Your task to perform on an android device: turn on location history Image 0: 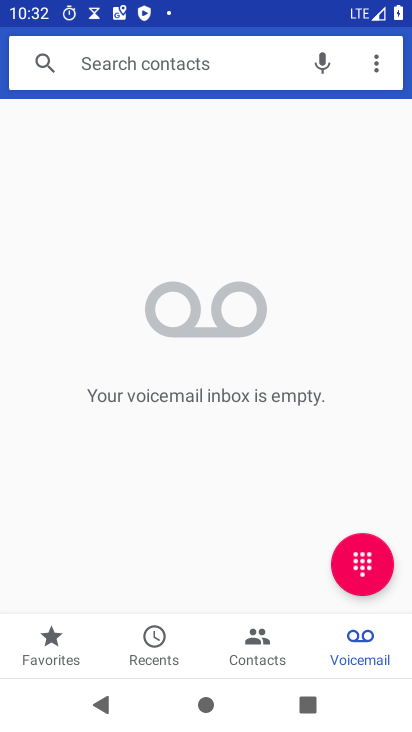
Step 0: press home button
Your task to perform on an android device: turn on location history Image 1: 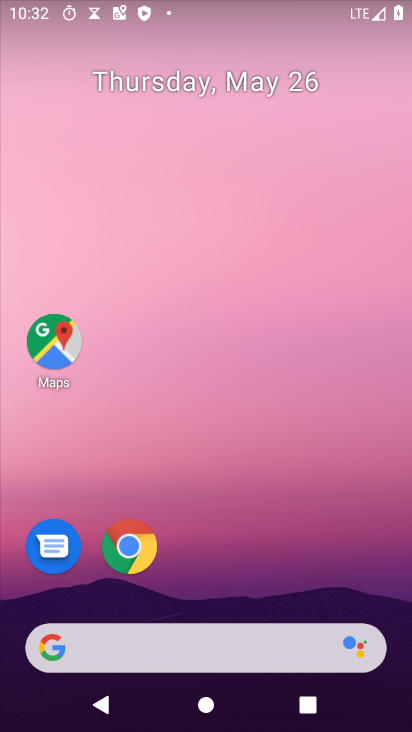
Step 1: drag from (310, 457) to (338, 132)
Your task to perform on an android device: turn on location history Image 2: 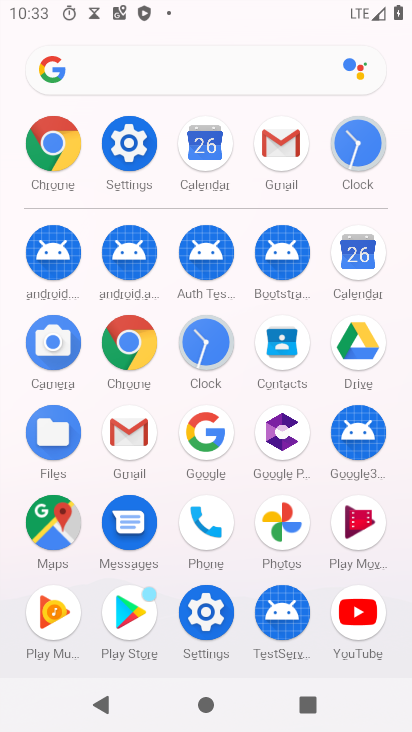
Step 2: click (203, 635)
Your task to perform on an android device: turn on location history Image 3: 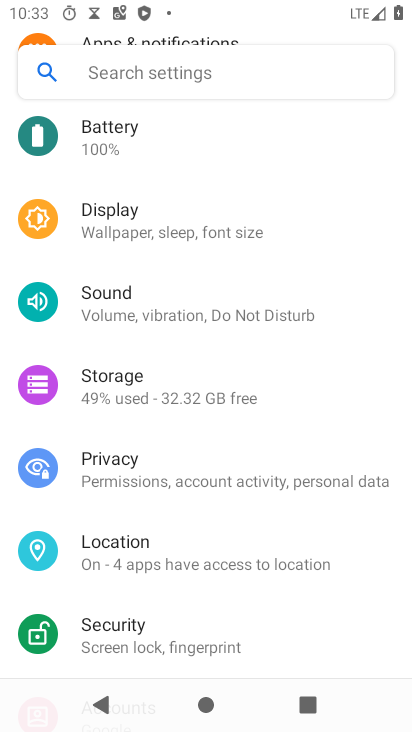
Step 3: drag from (340, 605) to (342, 303)
Your task to perform on an android device: turn on location history Image 4: 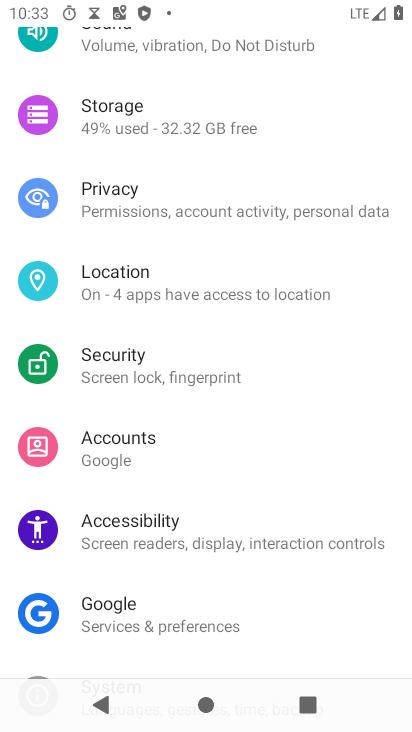
Step 4: click (186, 300)
Your task to perform on an android device: turn on location history Image 5: 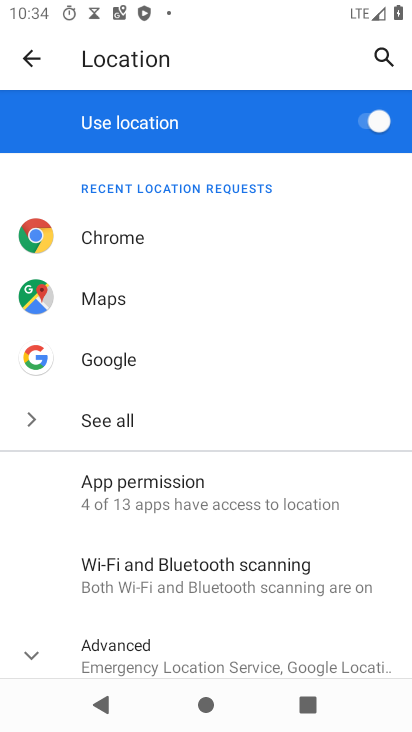
Step 5: drag from (244, 601) to (268, 313)
Your task to perform on an android device: turn on location history Image 6: 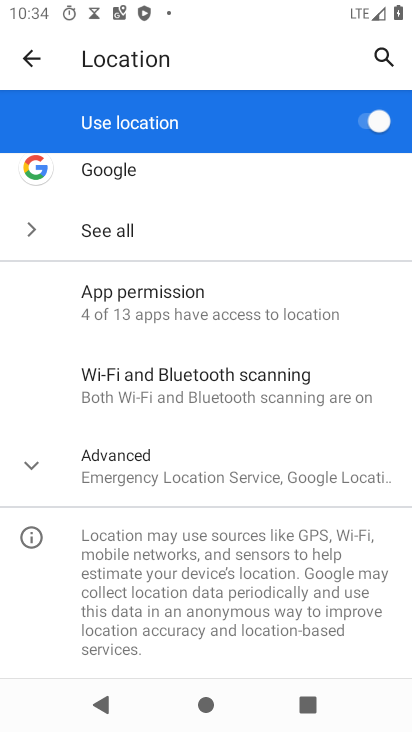
Step 6: click (200, 473)
Your task to perform on an android device: turn on location history Image 7: 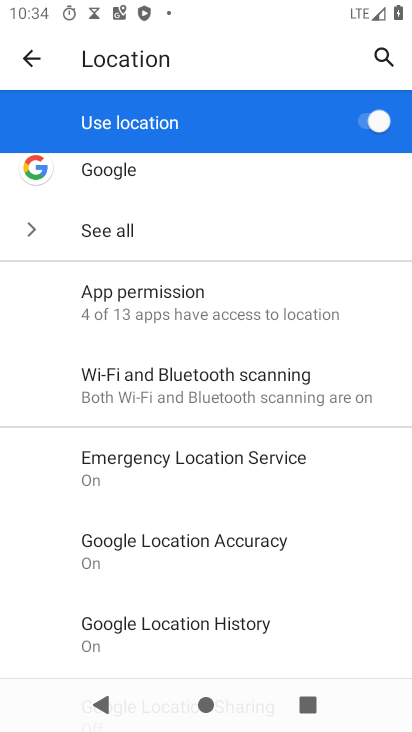
Step 7: click (191, 614)
Your task to perform on an android device: turn on location history Image 8: 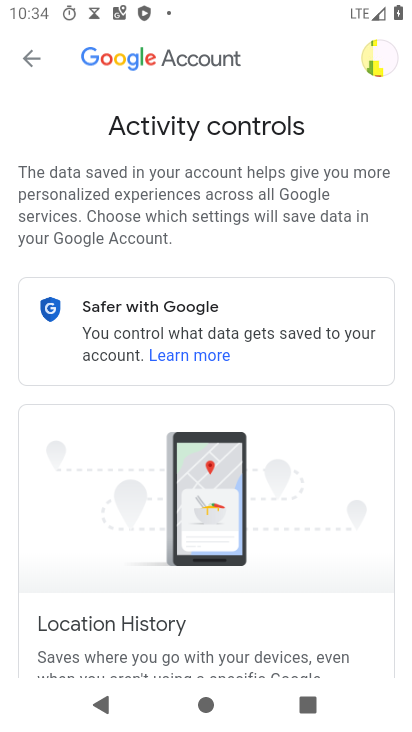
Step 8: task complete